Your task to perform on an android device: change the clock style Image 0: 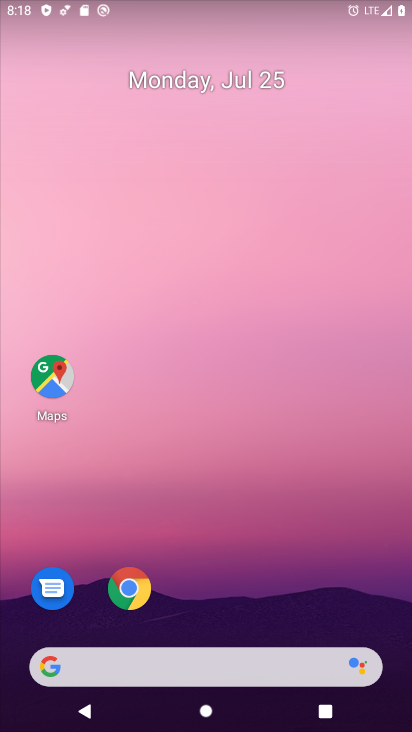
Step 0: press home button
Your task to perform on an android device: change the clock style Image 1: 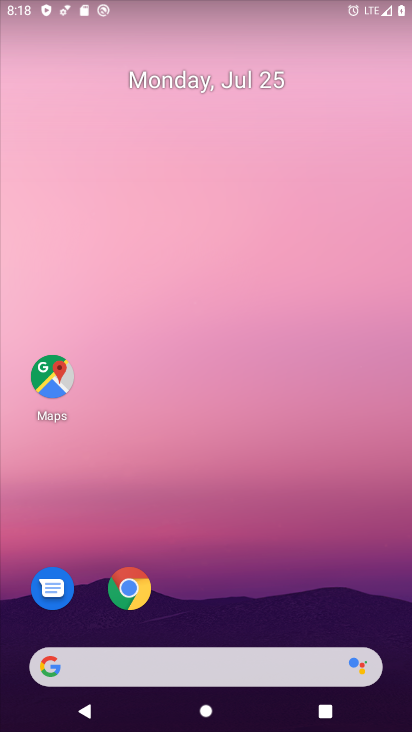
Step 1: drag from (354, 590) to (374, 103)
Your task to perform on an android device: change the clock style Image 2: 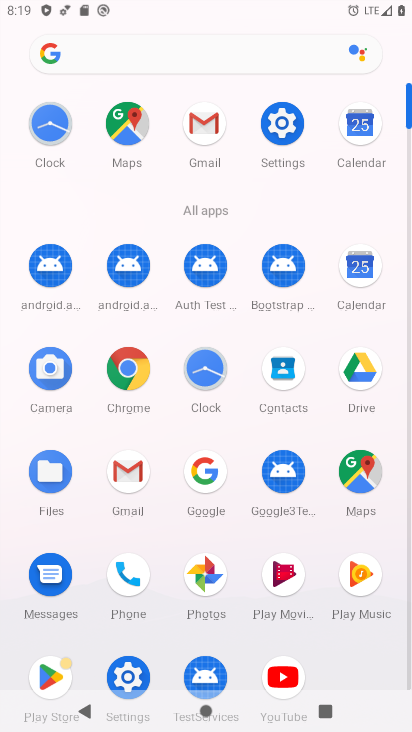
Step 2: click (207, 365)
Your task to perform on an android device: change the clock style Image 3: 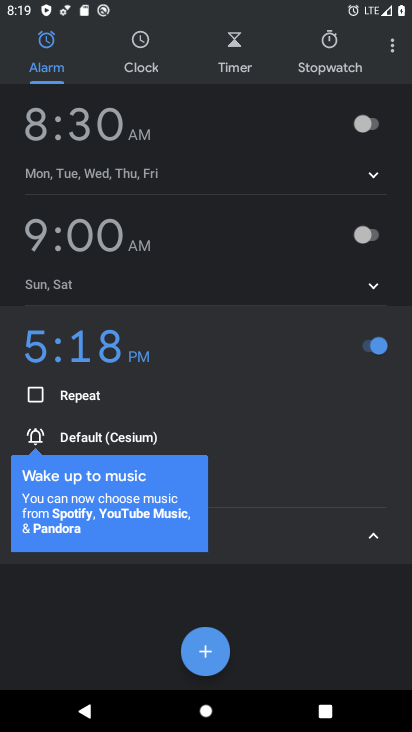
Step 3: click (393, 52)
Your task to perform on an android device: change the clock style Image 4: 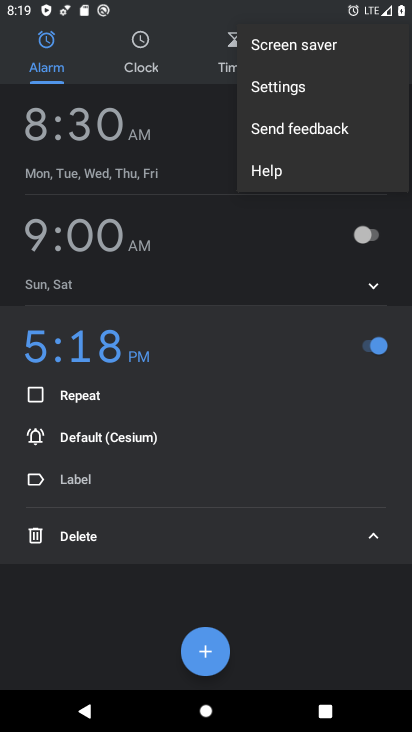
Step 4: click (312, 95)
Your task to perform on an android device: change the clock style Image 5: 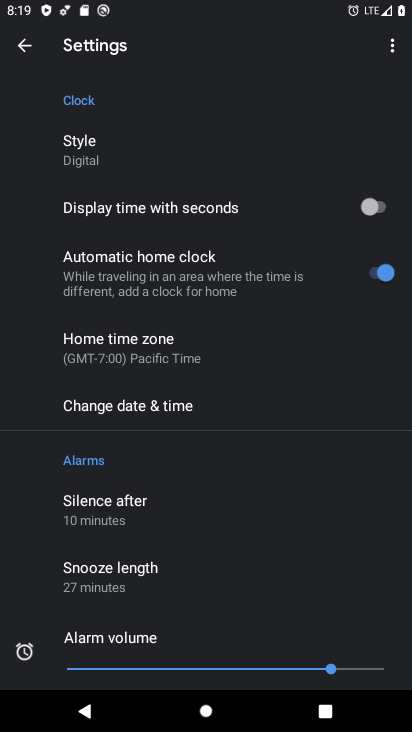
Step 5: drag from (345, 490) to (347, 414)
Your task to perform on an android device: change the clock style Image 6: 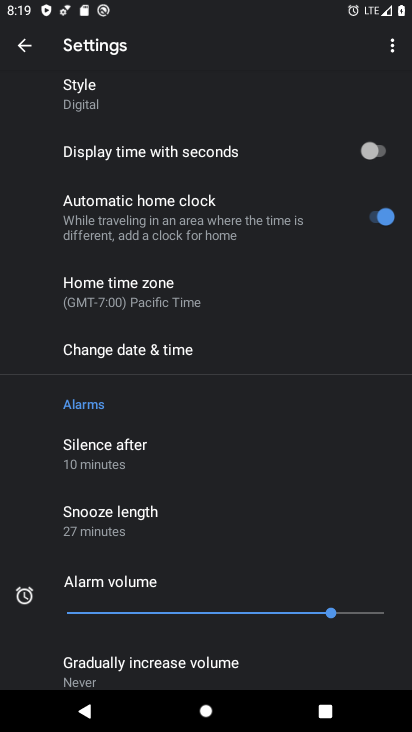
Step 6: drag from (326, 480) to (328, 394)
Your task to perform on an android device: change the clock style Image 7: 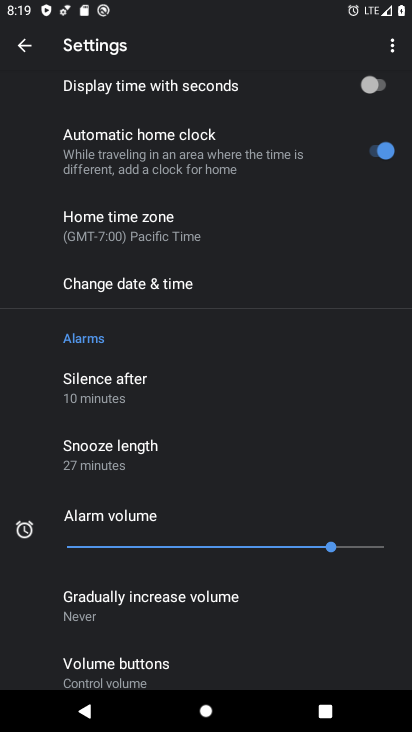
Step 7: drag from (313, 570) to (314, 422)
Your task to perform on an android device: change the clock style Image 8: 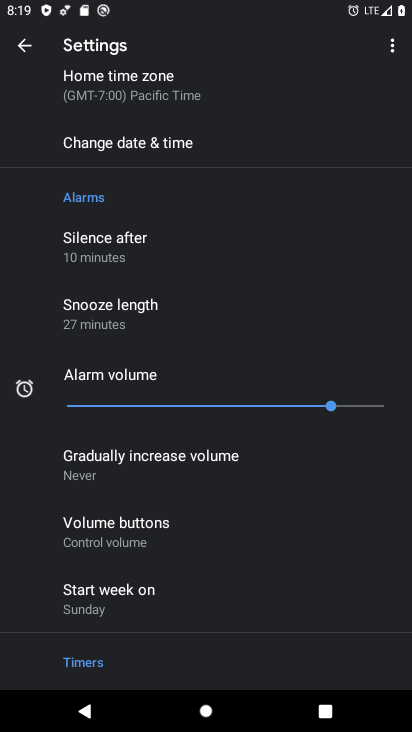
Step 8: drag from (335, 538) to (332, 433)
Your task to perform on an android device: change the clock style Image 9: 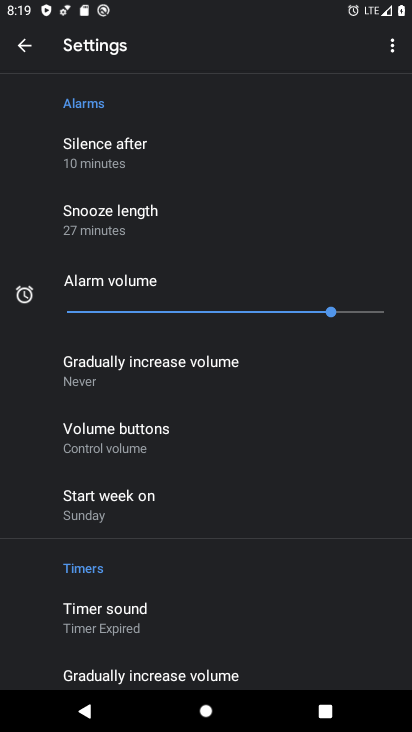
Step 9: drag from (332, 585) to (339, 337)
Your task to perform on an android device: change the clock style Image 10: 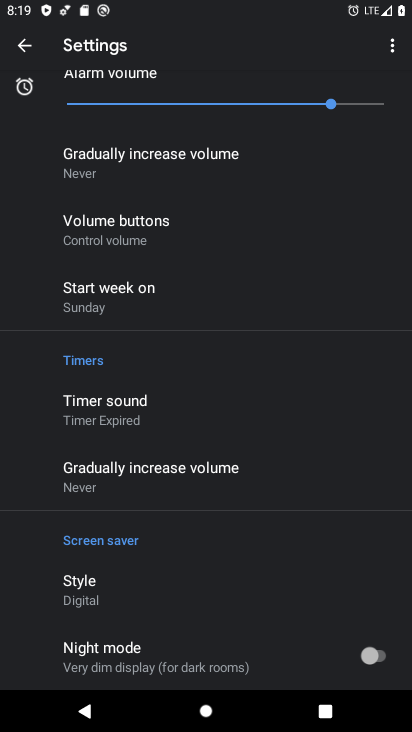
Step 10: drag from (341, 167) to (343, 278)
Your task to perform on an android device: change the clock style Image 11: 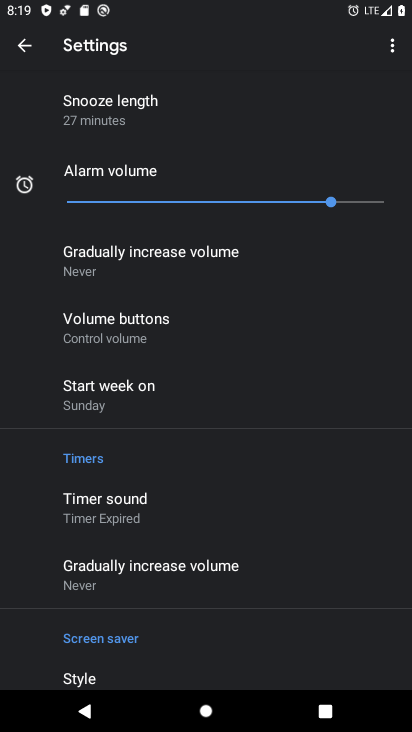
Step 11: drag from (367, 199) to (367, 317)
Your task to perform on an android device: change the clock style Image 12: 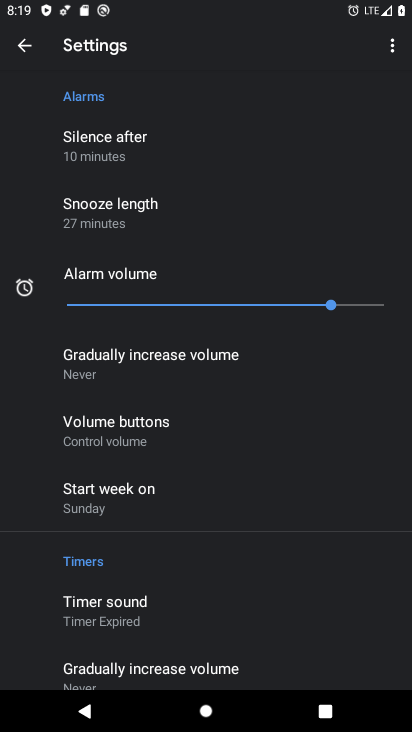
Step 12: drag from (371, 150) to (374, 299)
Your task to perform on an android device: change the clock style Image 13: 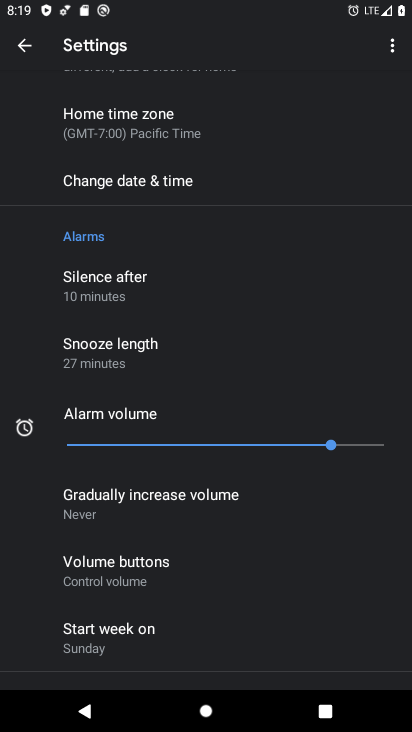
Step 13: drag from (354, 170) to (358, 293)
Your task to perform on an android device: change the clock style Image 14: 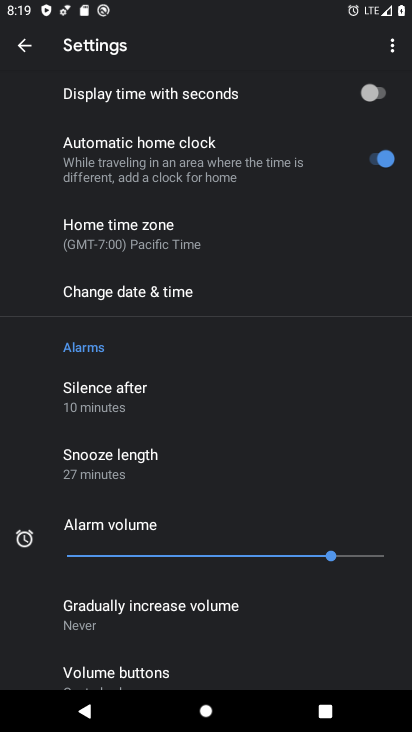
Step 14: drag from (252, 111) to (251, 251)
Your task to perform on an android device: change the clock style Image 15: 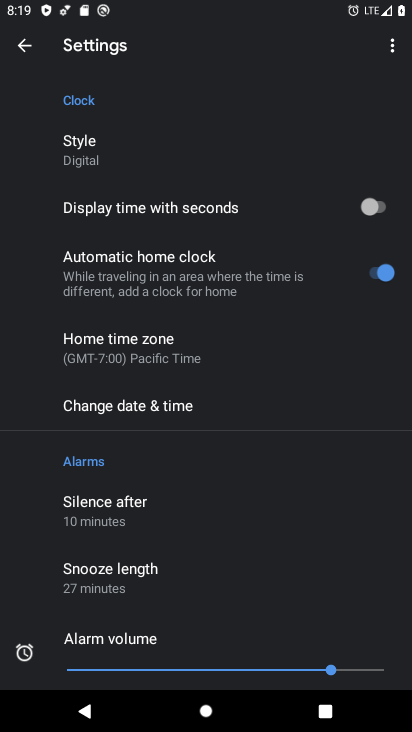
Step 15: click (111, 166)
Your task to perform on an android device: change the clock style Image 16: 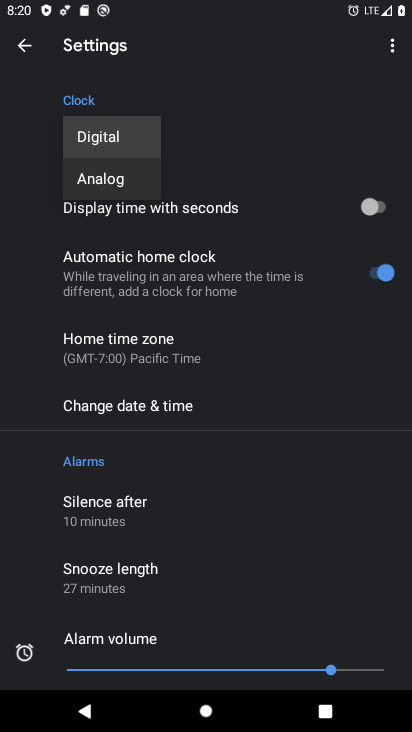
Step 16: click (121, 182)
Your task to perform on an android device: change the clock style Image 17: 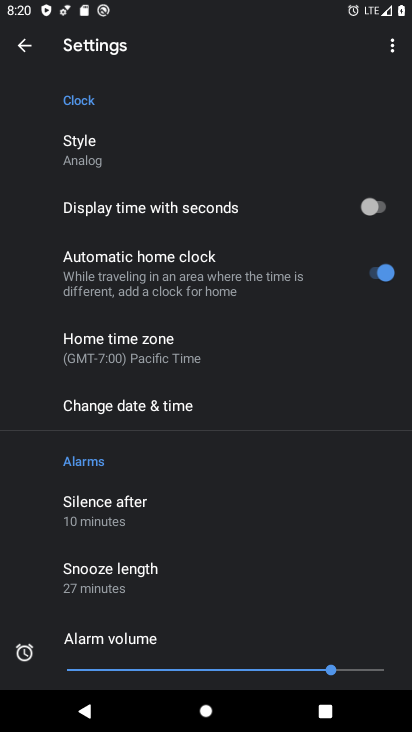
Step 17: task complete